Your task to perform on an android device: Open settings Image 0: 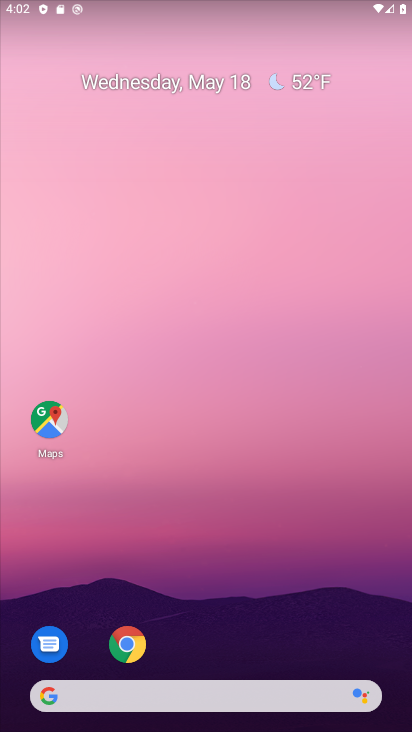
Step 0: drag from (181, 673) to (173, 10)
Your task to perform on an android device: Open settings Image 1: 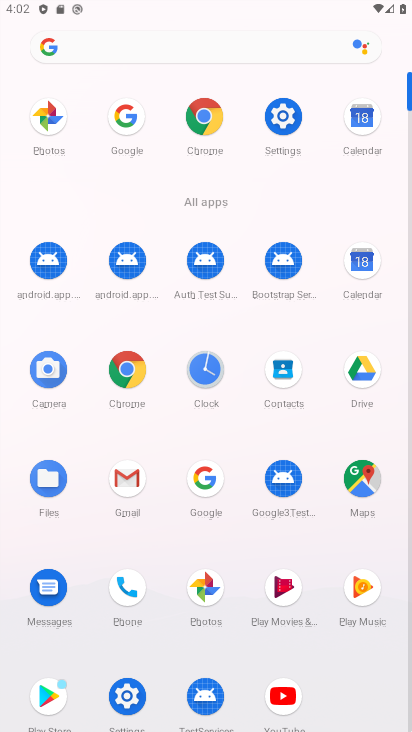
Step 1: click (123, 698)
Your task to perform on an android device: Open settings Image 2: 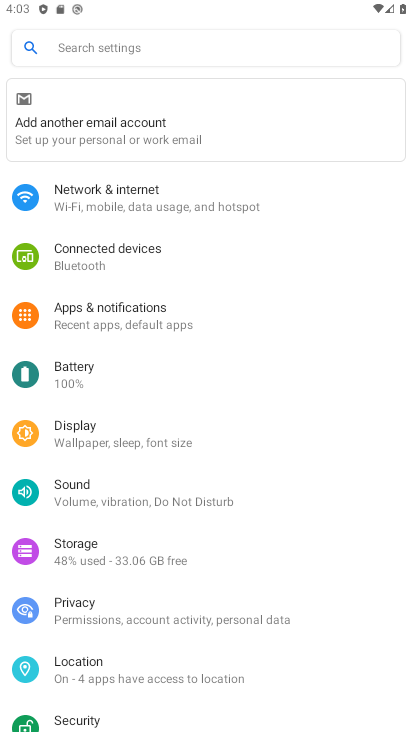
Step 2: task complete